Your task to perform on an android device: Go to internet settings Image 0: 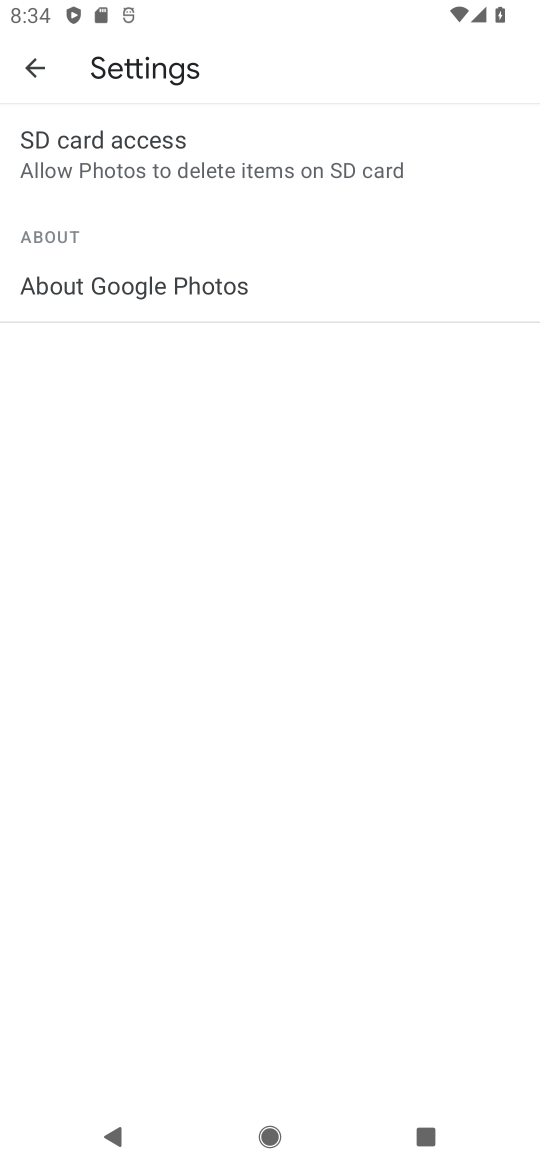
Step 0: press home button
Your task to perform on an android device: Go to internet settings Image 1: 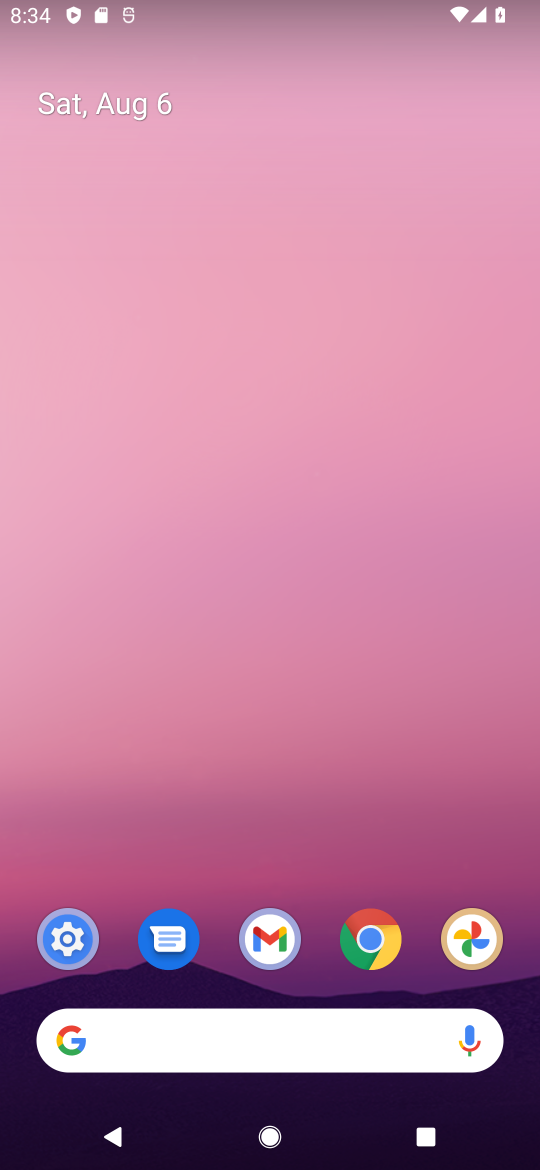
Step 1: drag from (290, 994) to (328, 137)
Your task to perform on an android device: Go to internet settings Image 2: 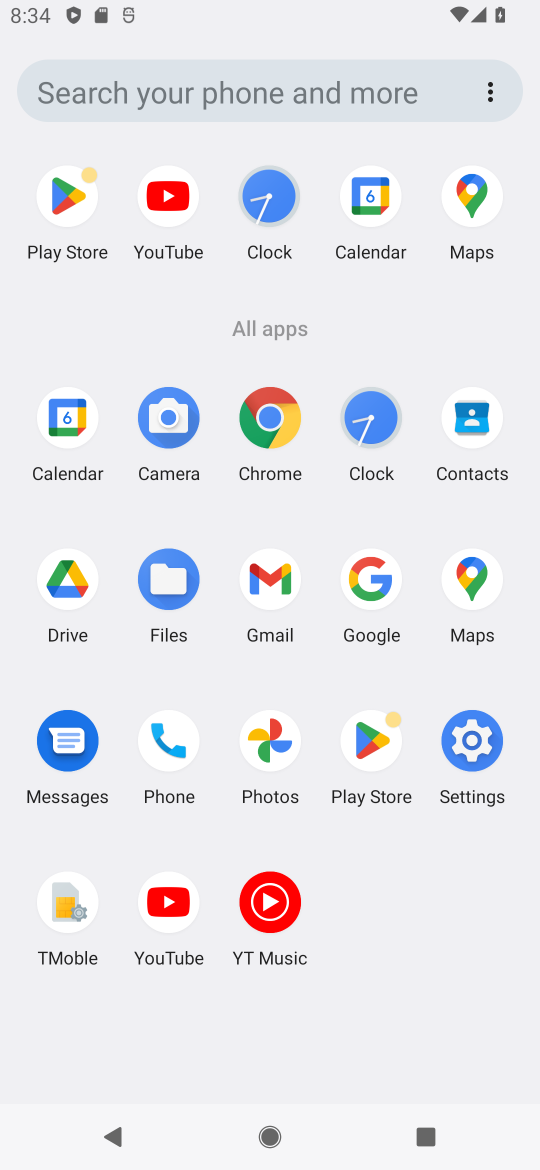
Step 2: click (468, 738)
Your task to perform on an android device: Go to internet settings Image 3: 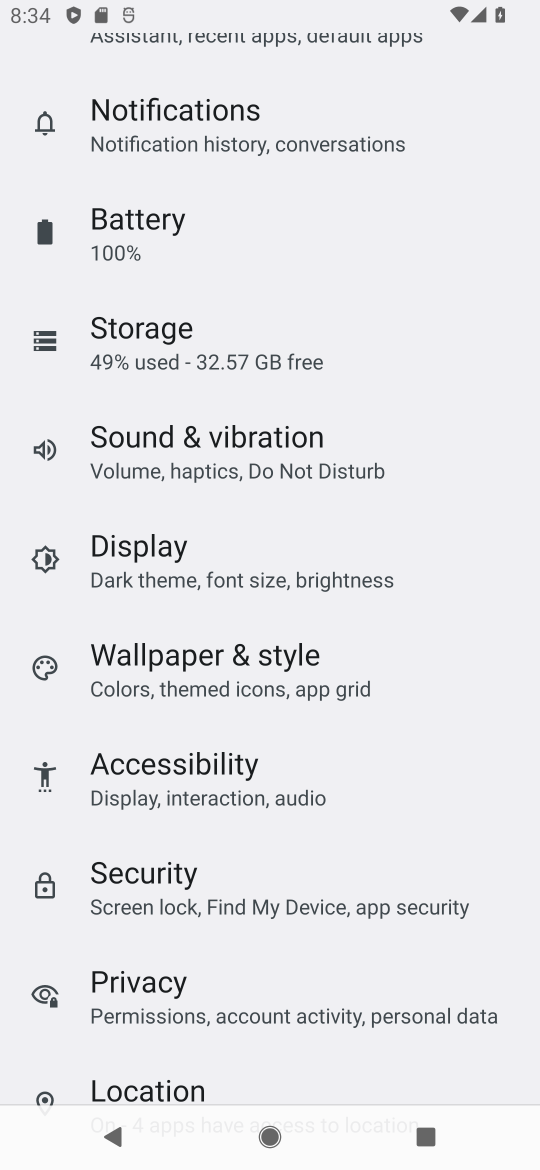
Step 3: drag from (266, 285) to (256, 791)
Your task to perform on an android device: Go to internet settings Image 4: 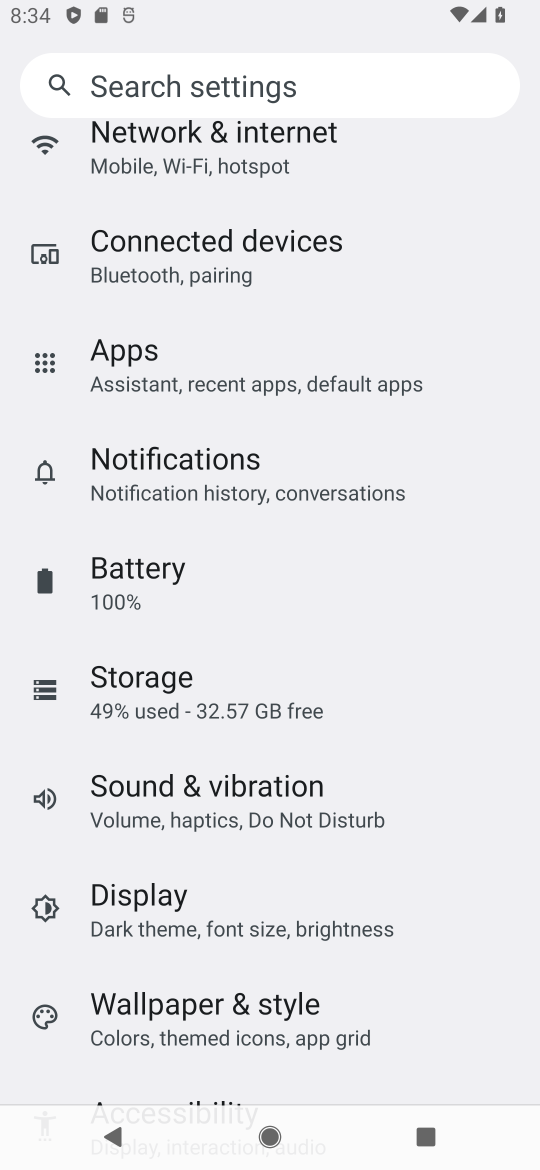
Step 4: click (225, 153)
Your task to perform on an android device: Go to internet settings Image 5: 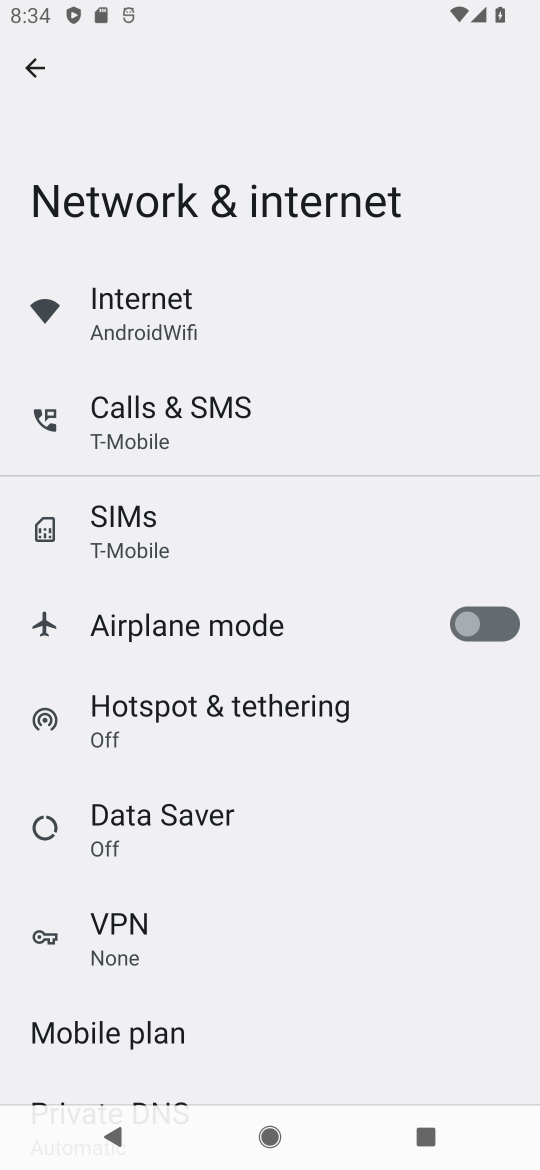
Step 5: task complete